Your task to perform on an android device: Open the calendar and show me this week's events Image 0: 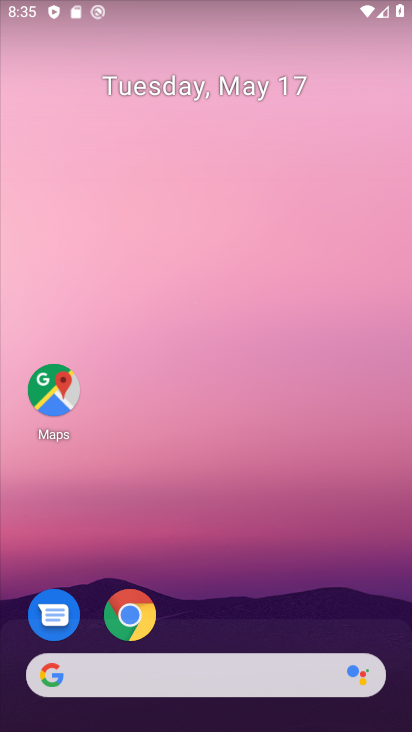
Step 0: drag from (251, 612) to (268, 25)
Your task to perform on an android device: Open the calendar and show me this week's events Image 1: 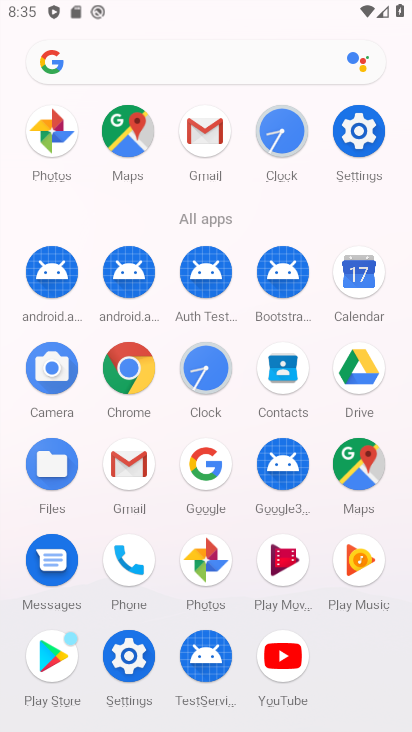
Step 1: click (364, 272)
Your task to perform on an android device: Open the calendar and show me this week's events Image 2: 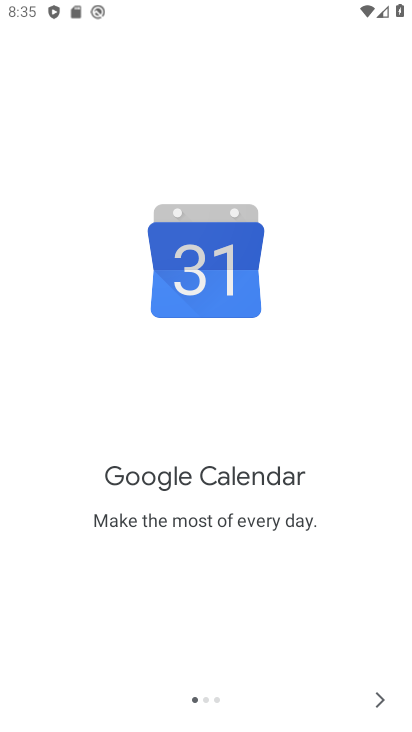
Step 2: click (389, 703)
Your task to perform on an android device: Open the calendar and show me this week's events Image 3: 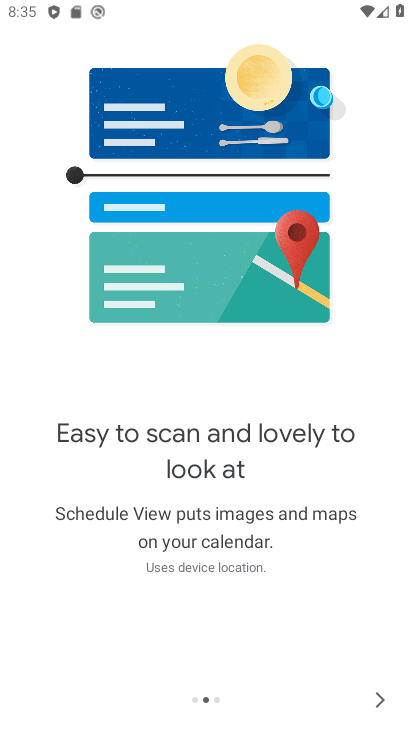
Step 3: click (388, 702)
Your task to perform on an android device: Open the calendar and show me this week's events Image 4: 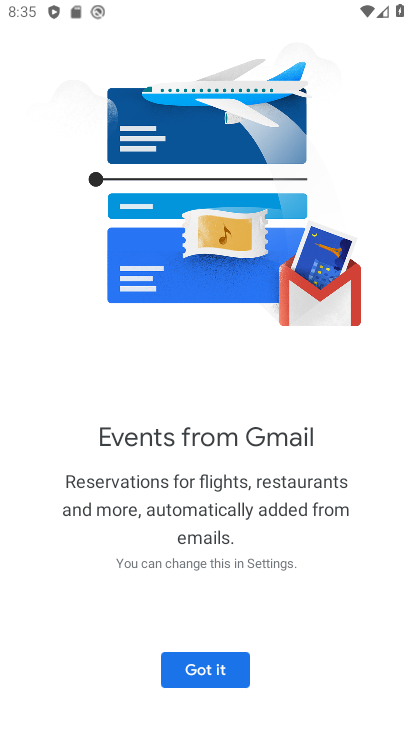
Step 4: click (223, 663)
Your task to perform on an android device: Open the calendar and show me this week's events Image 5: 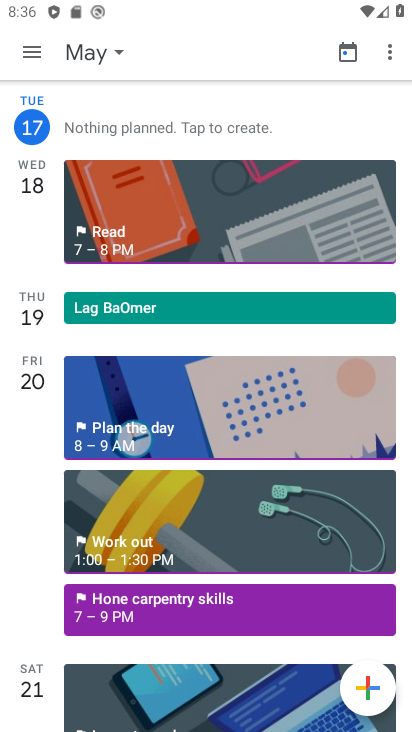
Step 5: click (39, 51)
Your task to perform on an android device: Open the calendar and show me this week's events Image 6: 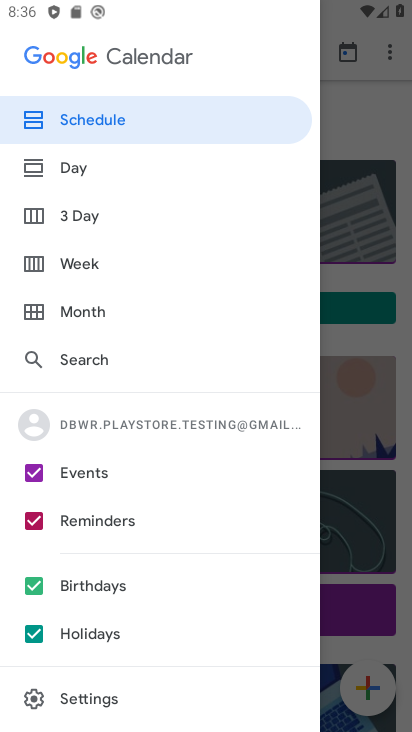
Step 6: click (100, 259)
Your task to perform on an android device: Open the calendar and show me this week's events Image 7: 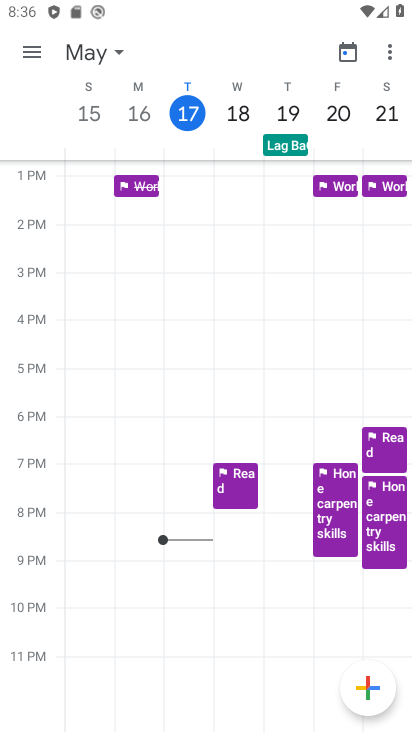
Step 7: click (90, 61)
Your task to perform on an android device: Open the calendar and show me this week's events Image 8: 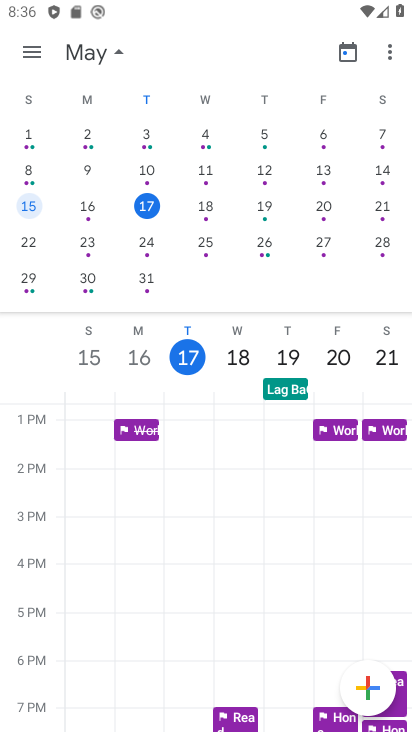
Step 8: click (145, 211)
Your task to perform on an android device: Open the calendar and show me this week's events Image 9: 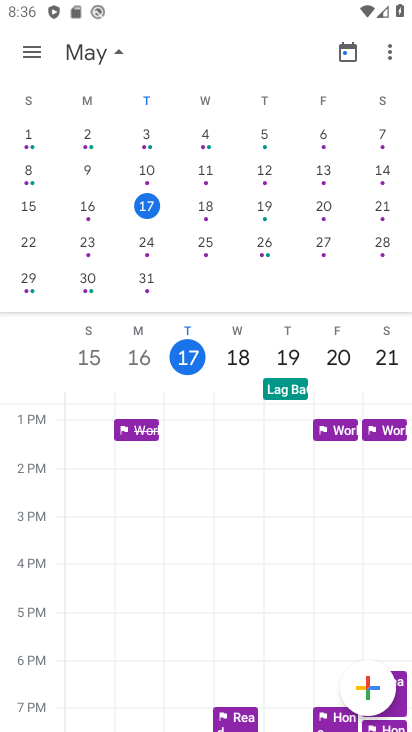
Step 9: task complete